Your task to perform on an android device: Search for a storage ottoman in the living room Image 0: 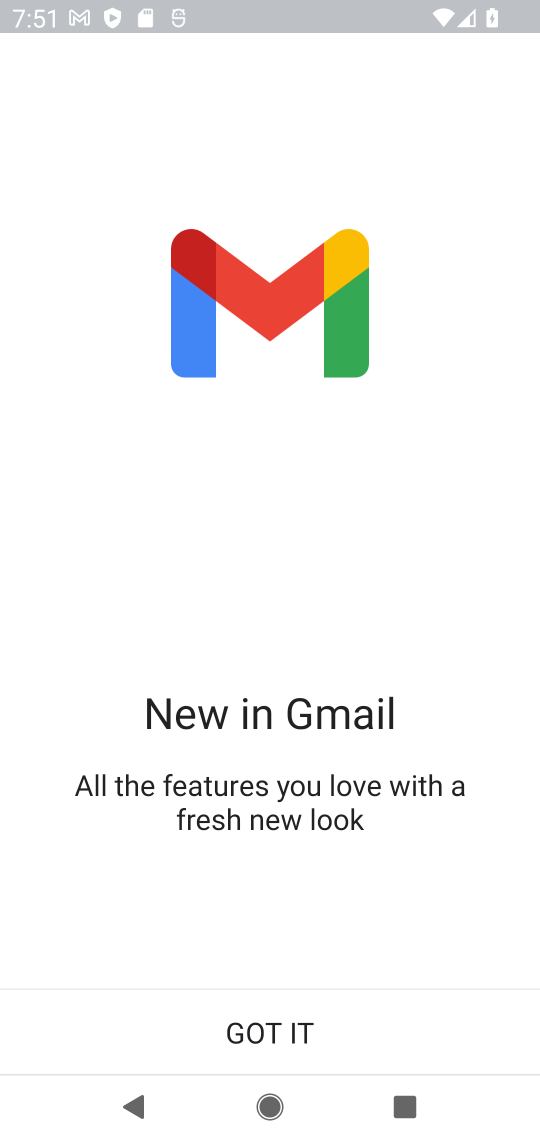
Step 0: press home button
Your task to perform on an android device: Search for a storage ottoman in the living room Image 1: 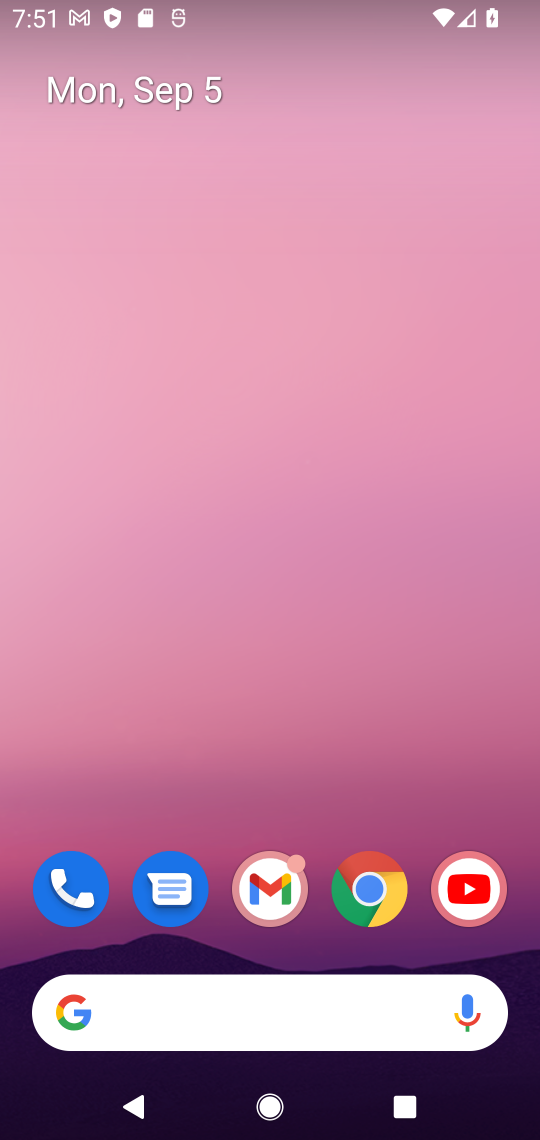
Step 1: click (218, 1018)
Your task to perform on an android device: Search for a storage ottoman in the living room Image 2: 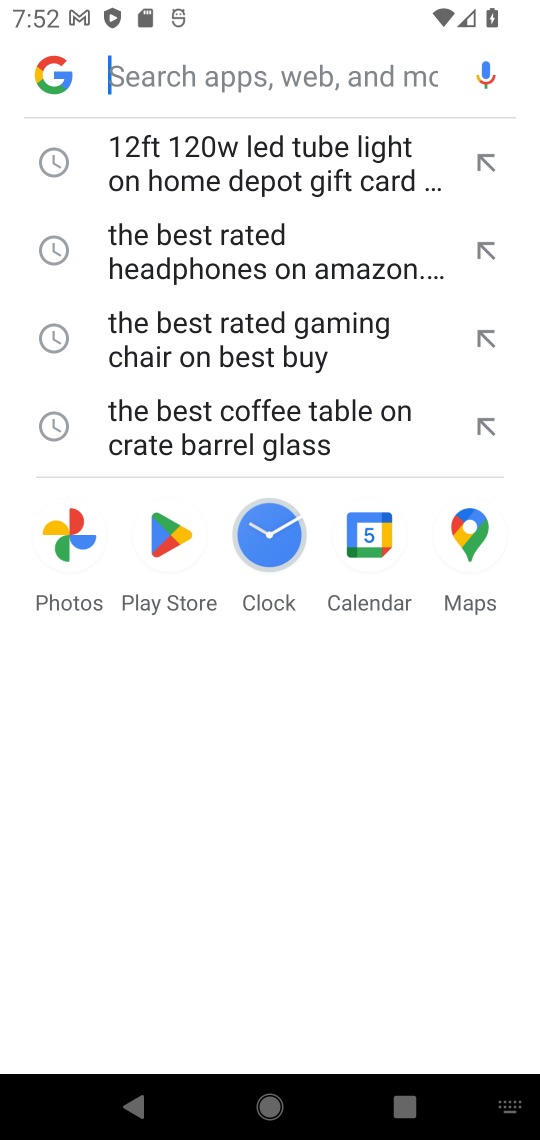
Step 2: type "a storage ottoman in the living room"
Your task to perform on an android device: Search for a storage ottoman in the living room Image 3: 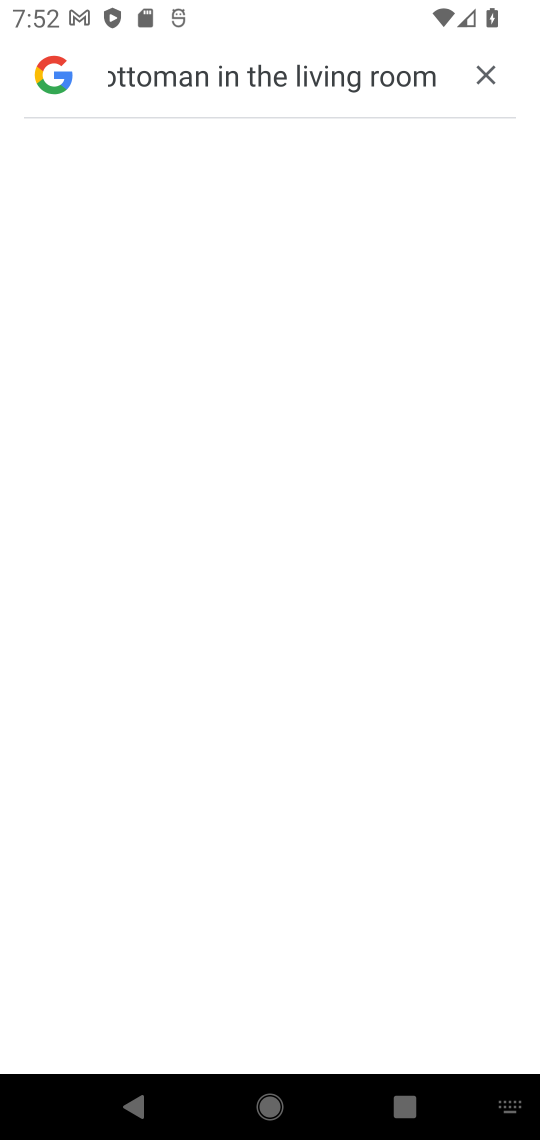
Step 3: press home button
Your task to perform on an android device: Search for a storage ottoman in the living room Image 4: 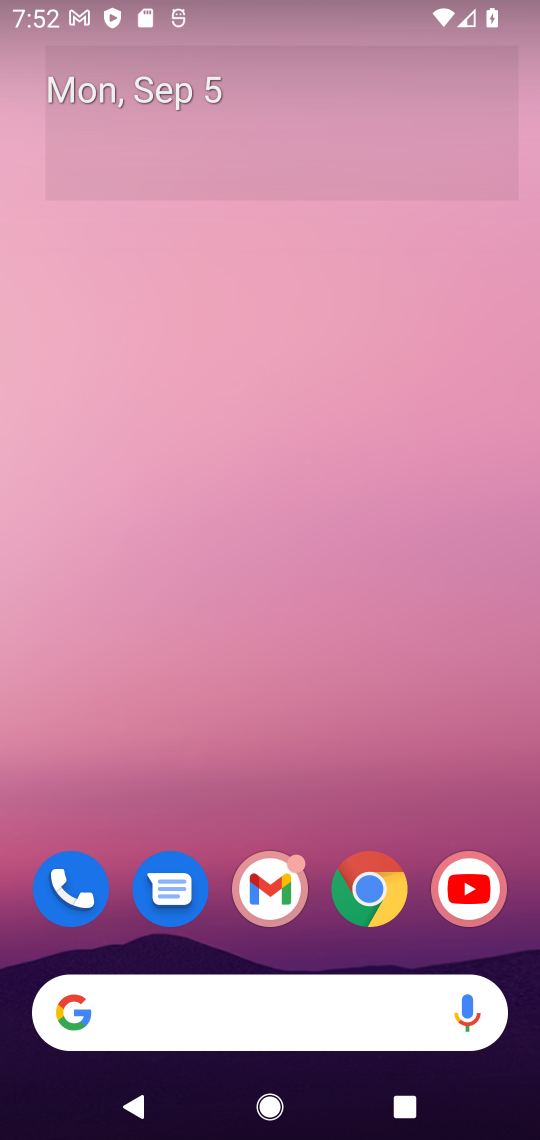
Step 4: press home button
Your task to perform on an android device: Search for a storage ottoman in the living room Image 5: 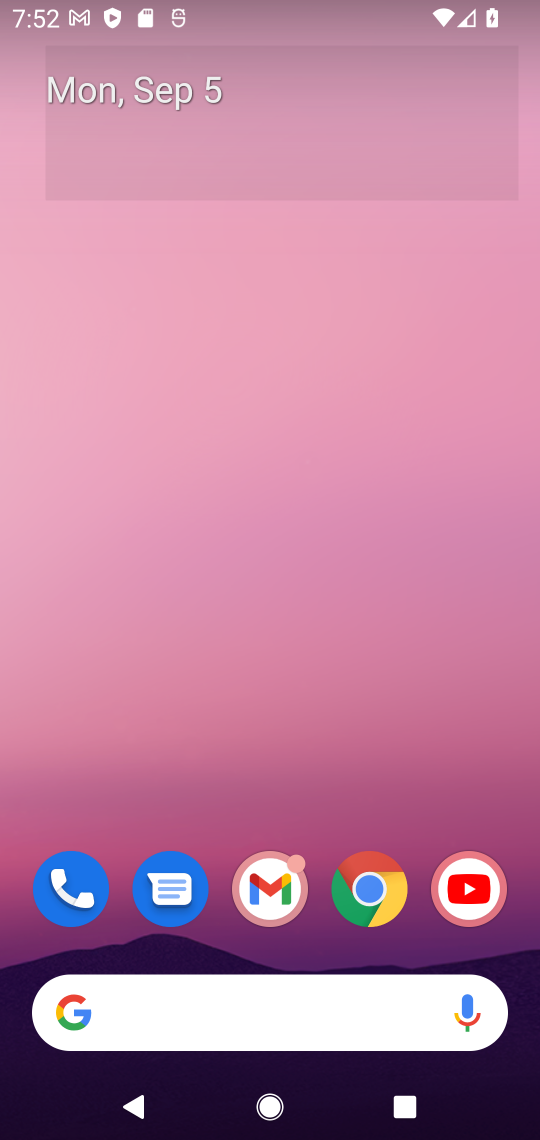
Step 5: click (280, 984)
Your task to perform on an android device: Search for a storage ottoman in the living room Image 6: 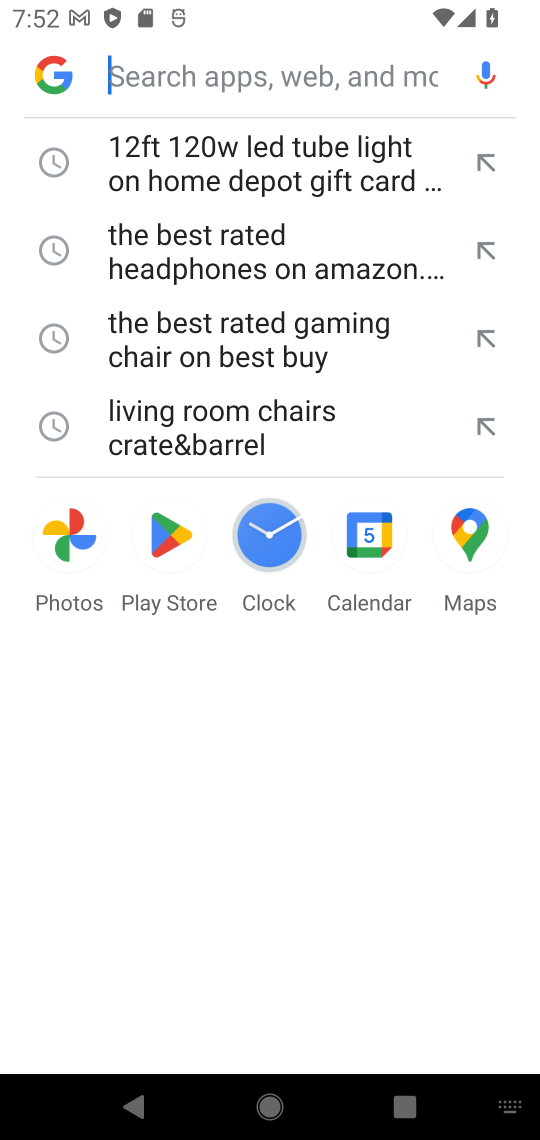
Step 6: type " a storage ottoman in the living room"
Your task to perform on an android device: Search for a storage ottoman in the living room Image 7: 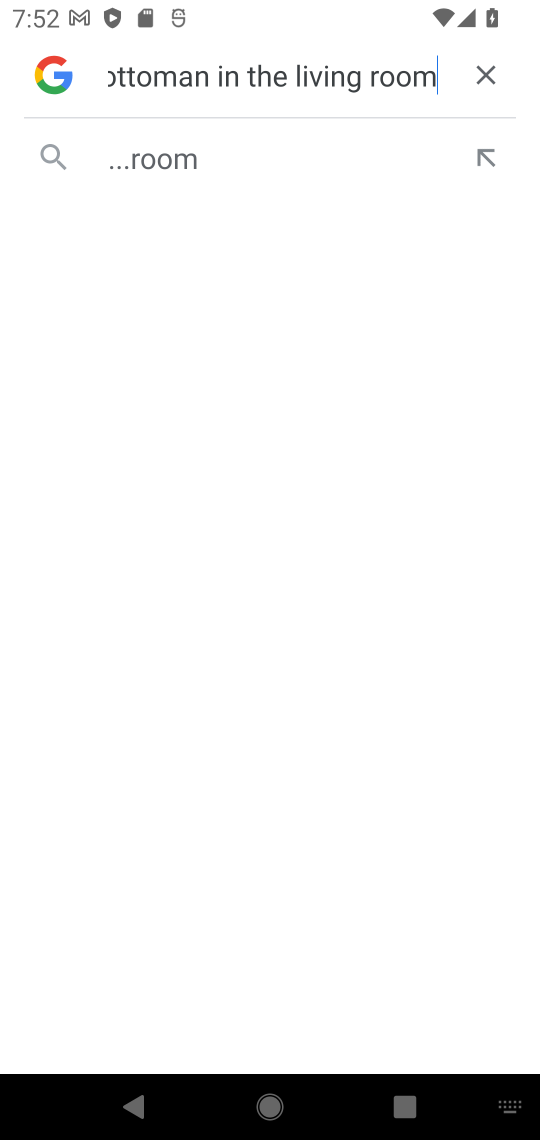
Step 7: click (143, 160)
Your task to perform on an android device: Search for a storage ottoman in the living room Image 8: 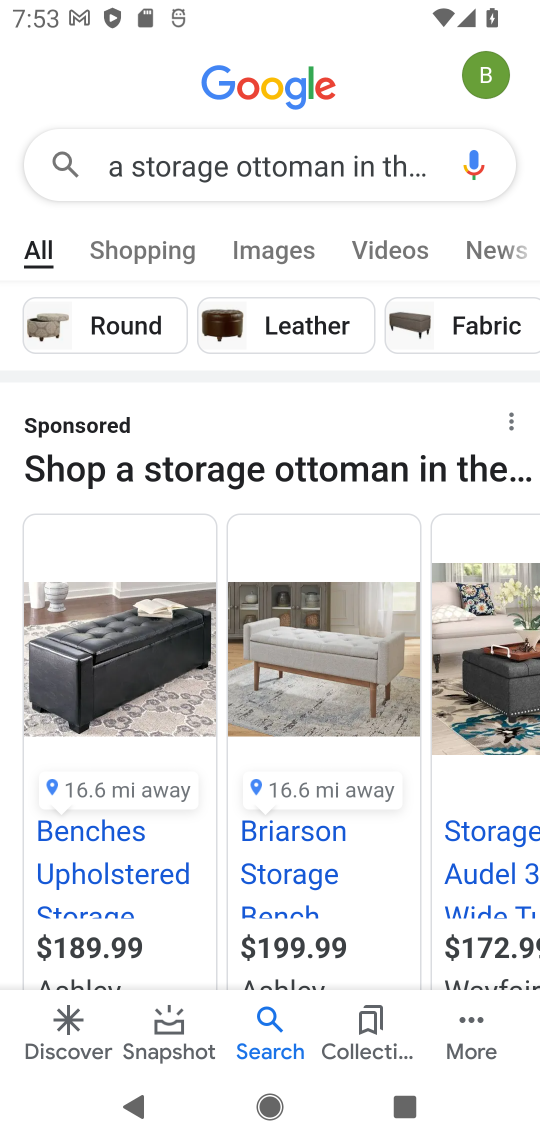
Step 8: task complete